Your task to perform on an android device: Do I have any events today? Image 0: 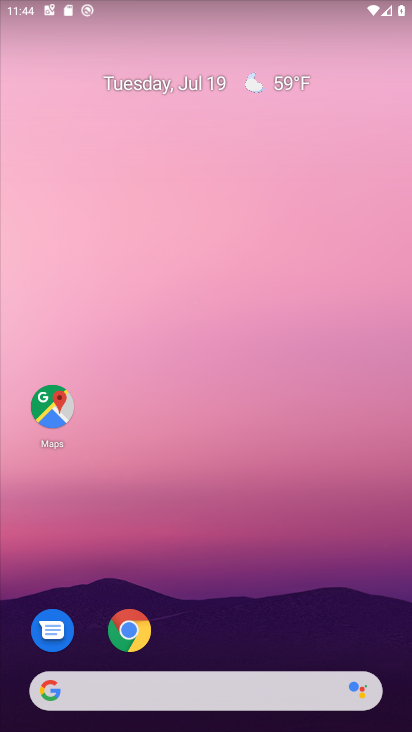
Step 0: drag from (385, 628) to (346, 96)
Your task to perform on an android device: Do I have any events today? Image 1: 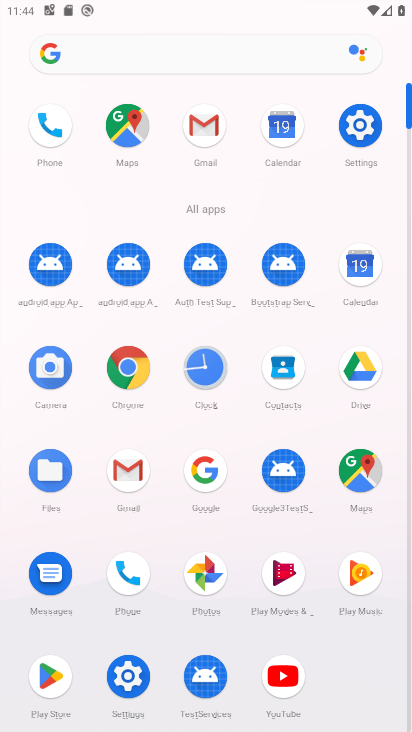
Step 1: click (360, 265)
Your task to perform on an android device: Do I have any events today? Image 2: 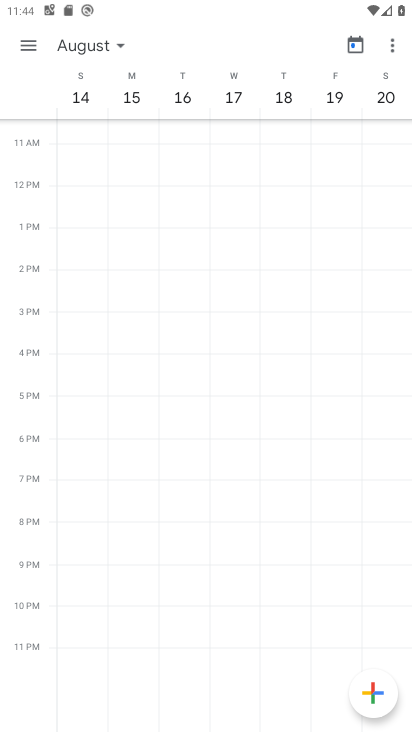
Step 2: click (28, 41)
Your task to perform on an android device: Do I have any events today? Image 3: 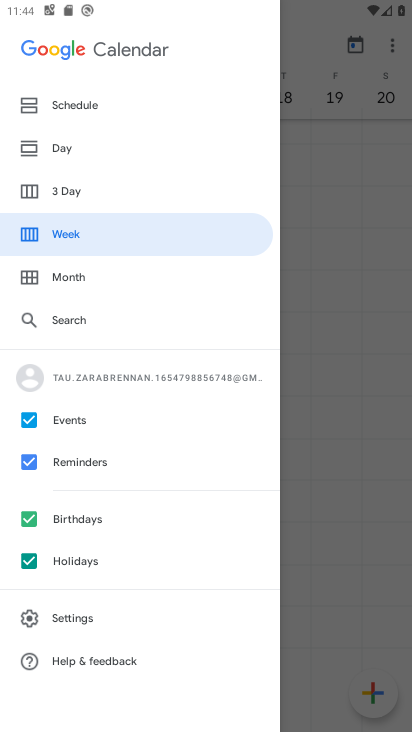
Step 3: click (53, 145)
Your task to perform on an android device: Do I have any events today? Image 4: 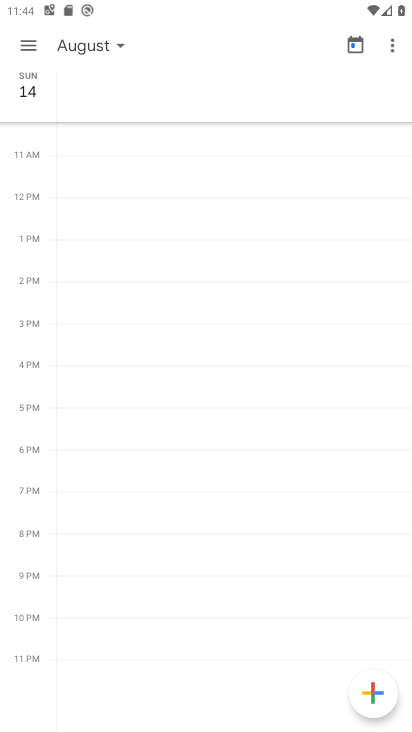
Step 4: click (120, 47)
Your task to perform on an android device: Do I have any events today? Image 5: 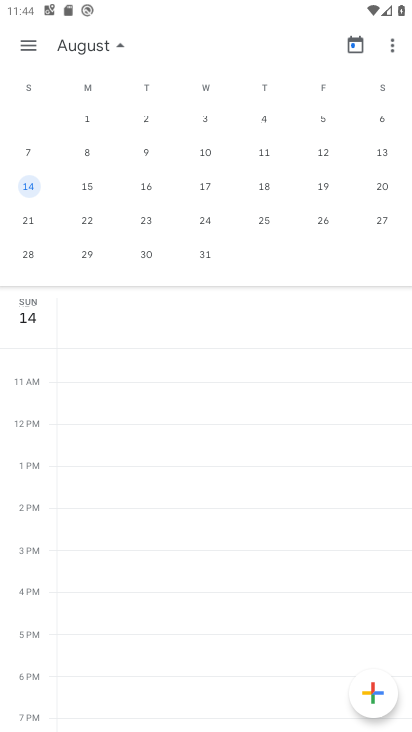
Step 5: drag from (23, 217) to (387, 214)
Your task to perform on an android device: Do I have any events today? Image 6: 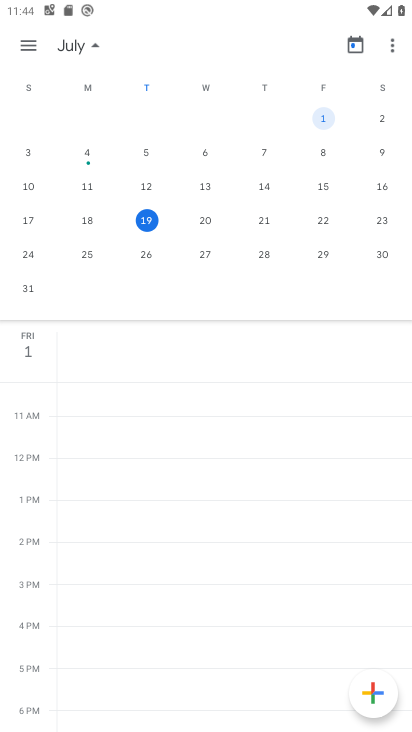
Step 6: click (147, 218)
Your task to perform on an android device: Do I have any events today? Image 7: 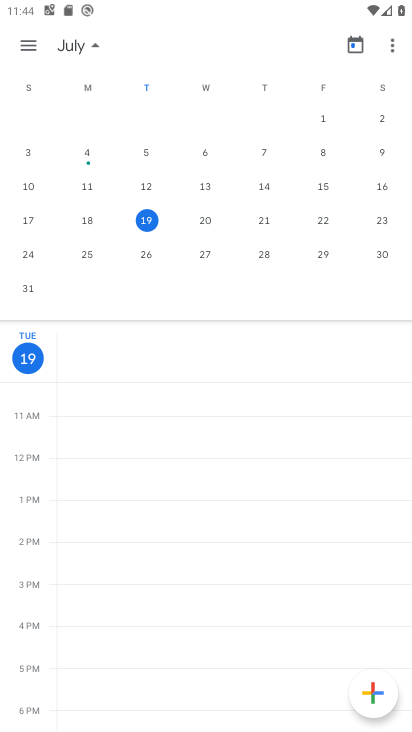
Step 7: task complete